Your task to perform on an android device: Add bose soundsport free to the cart on newegg.com Image 0: 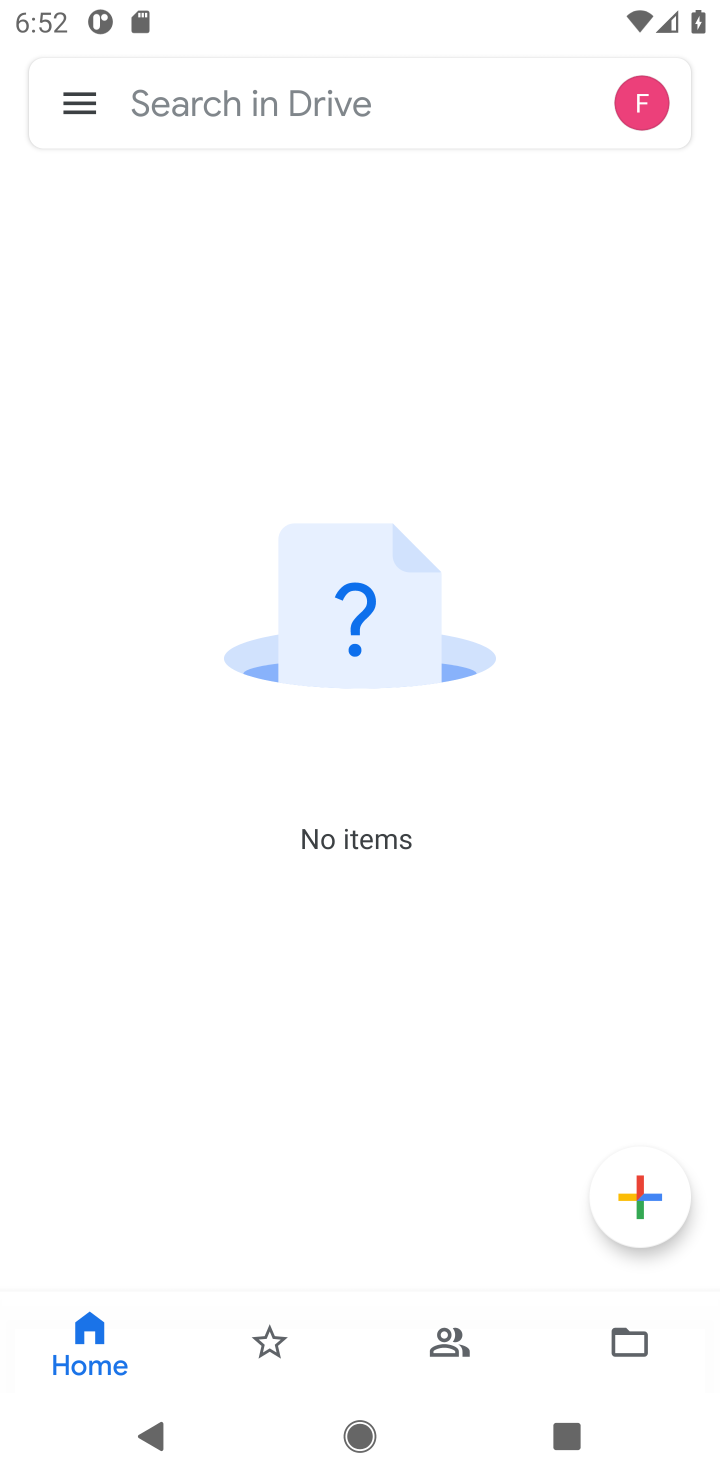
Step 0: press home button
Your task to perform on an android device: Add bose soundsport free to the cart on newegg.com Image 1: 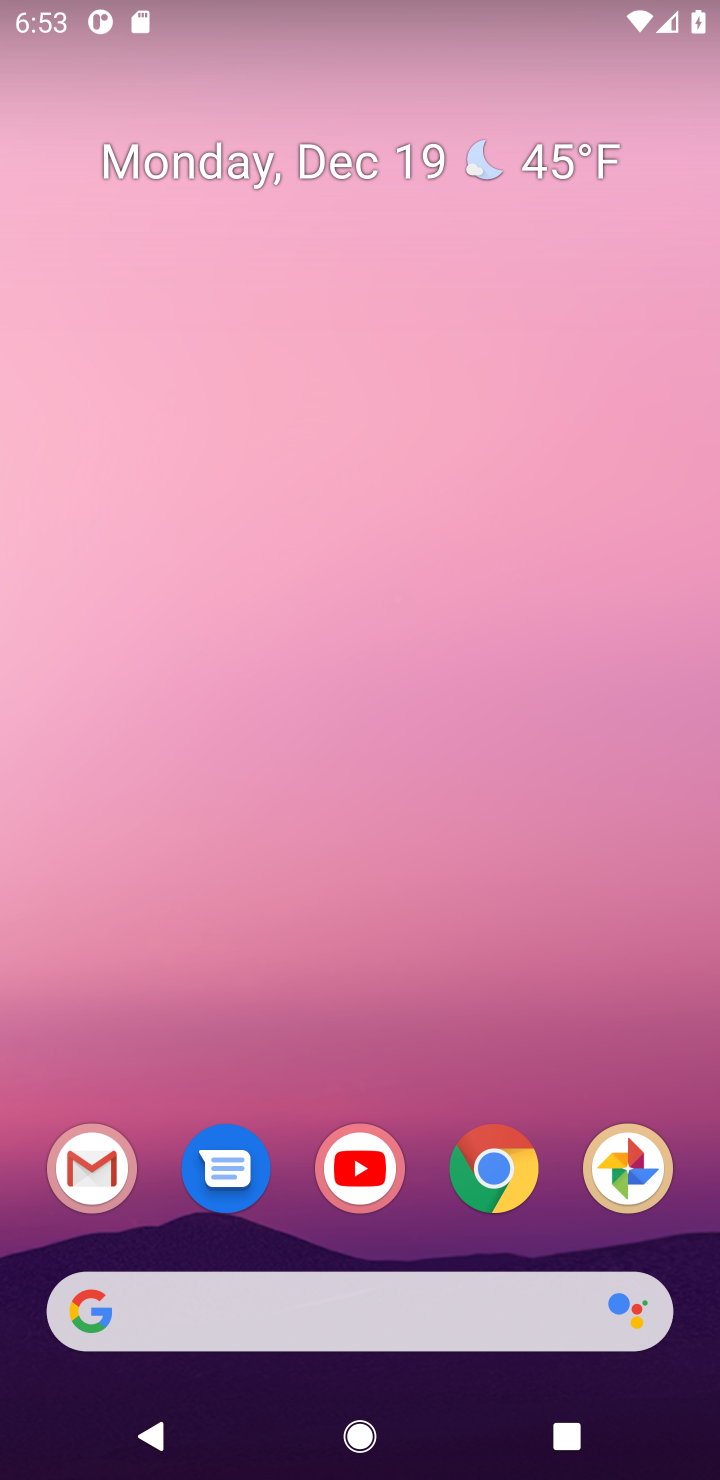
Step 1: click (488, 1190)
Your task to perform on an android device: Add bose soundsport free to the cart on newegg.com Image 2: 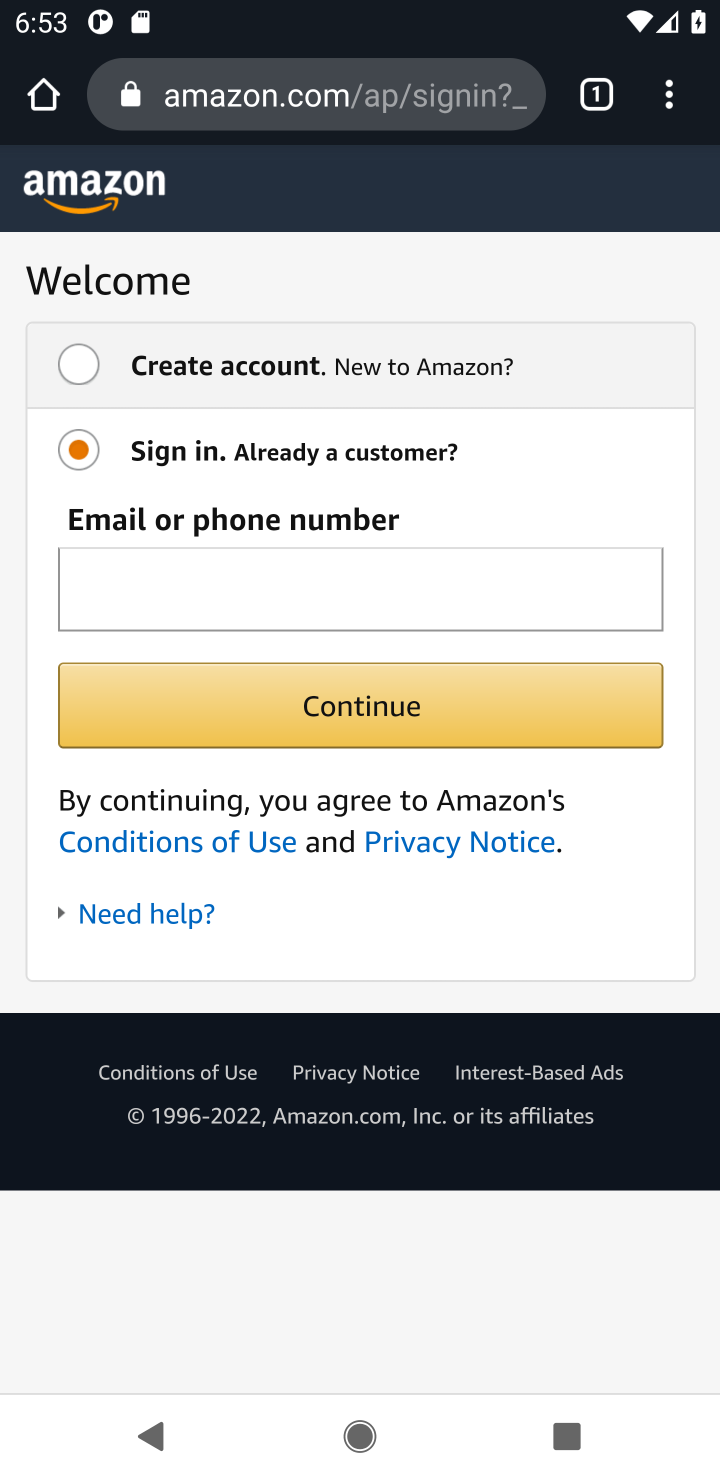
Step 2: click (289, 94)
Your task to perform on an android device: Add bose soundsport free to the cart on newegg.com Image 3: 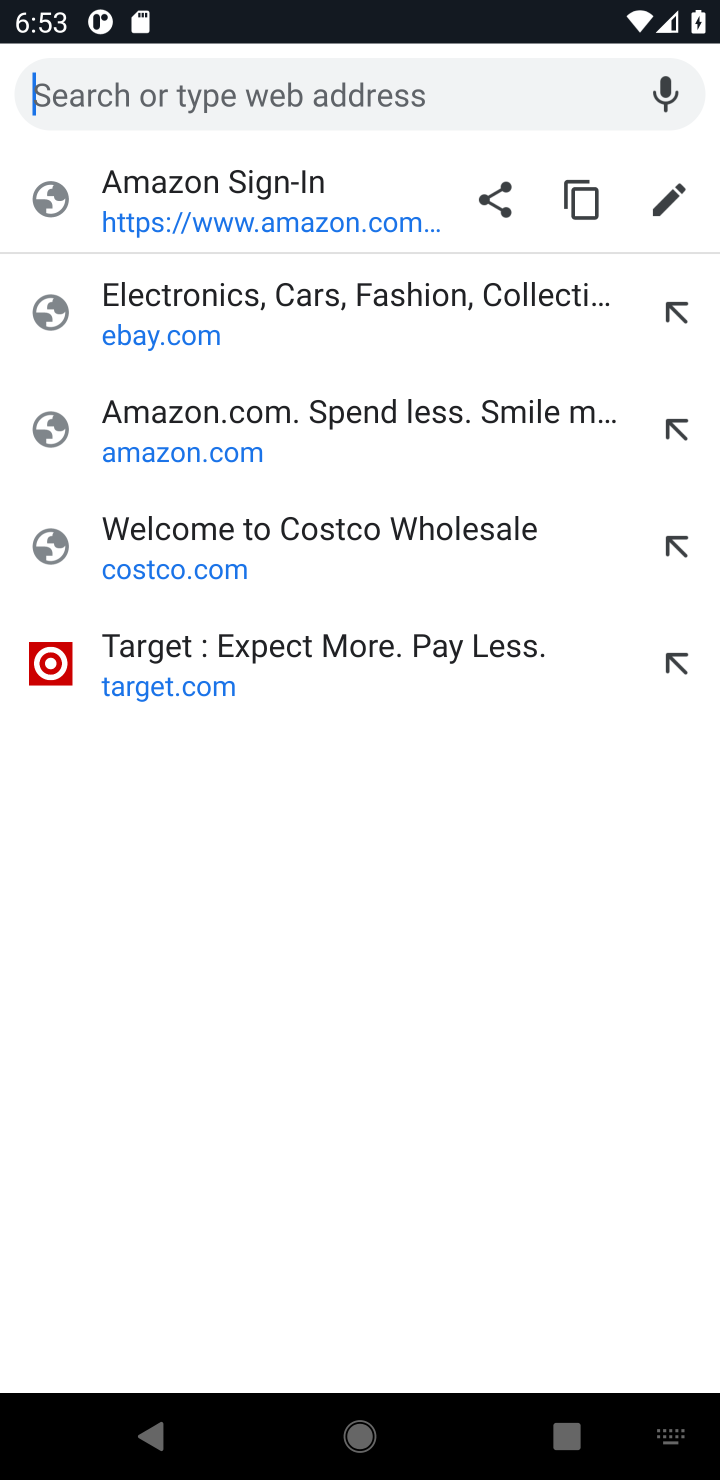
Step 3: type "newegg.com"
Your task to perform on an android device: Add bose soundsport free to the cart on newegg.com Image 4: 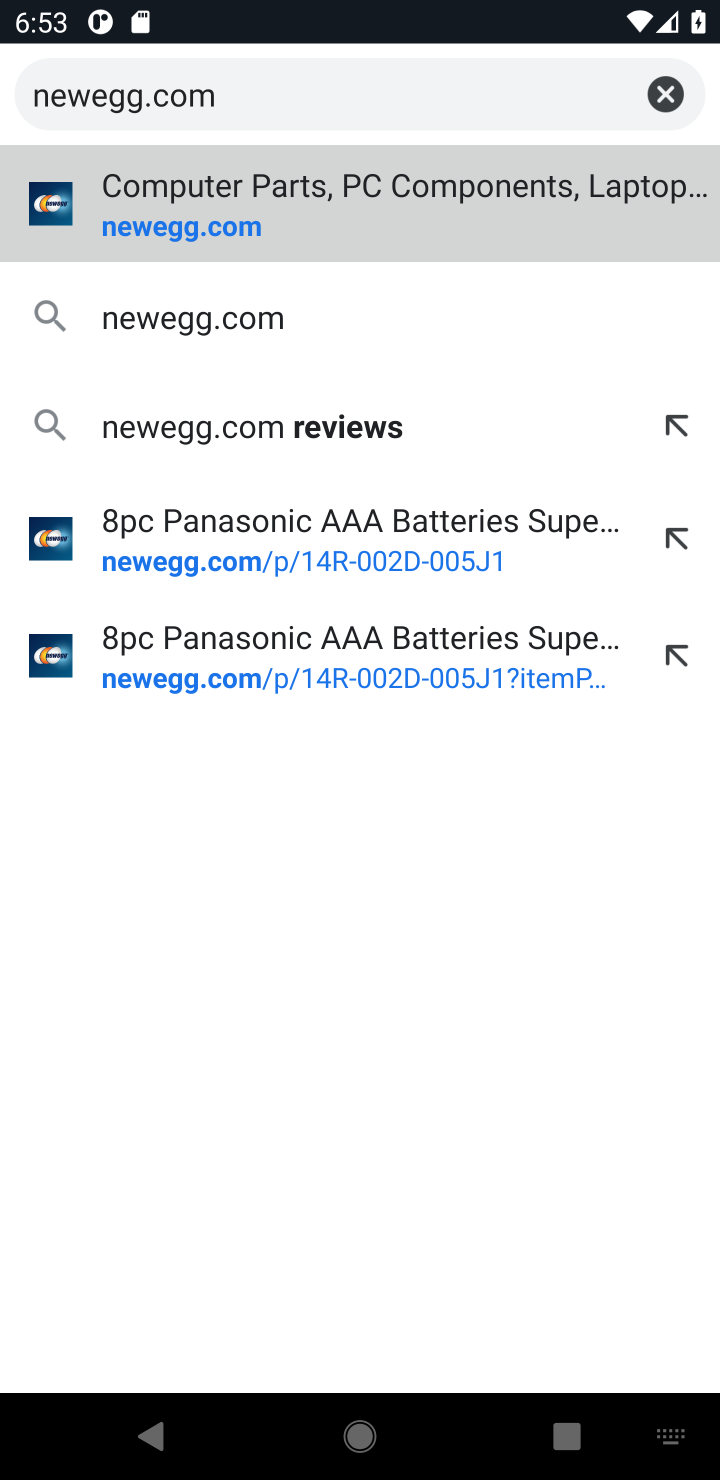
Step 4: click (143, 228)
Your task to perform on an android device: Add bose soundsport free to the cart on newegg.com Image 5: 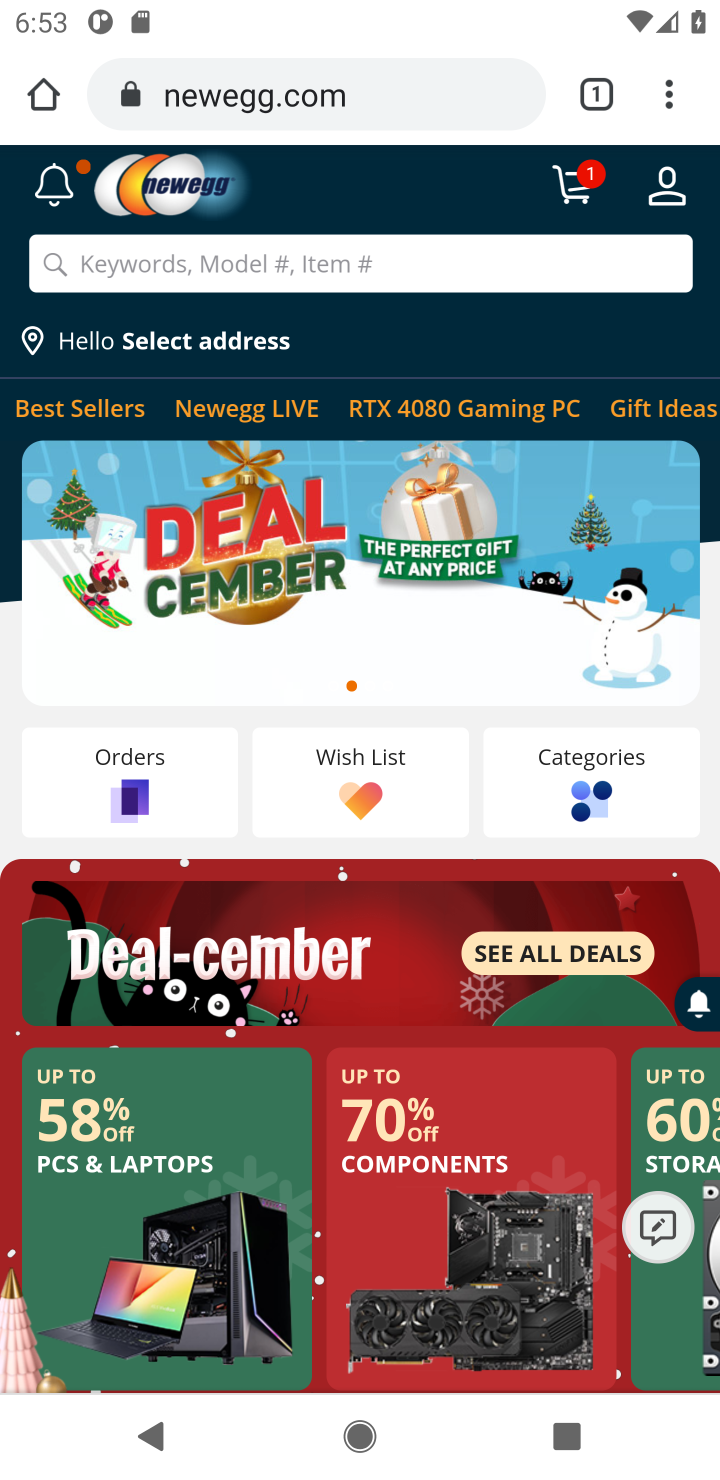
Step 5: click (141, 259)
Your task to perform on an android device: Add bose soundsport free to the cart on newegg.com Image 6: 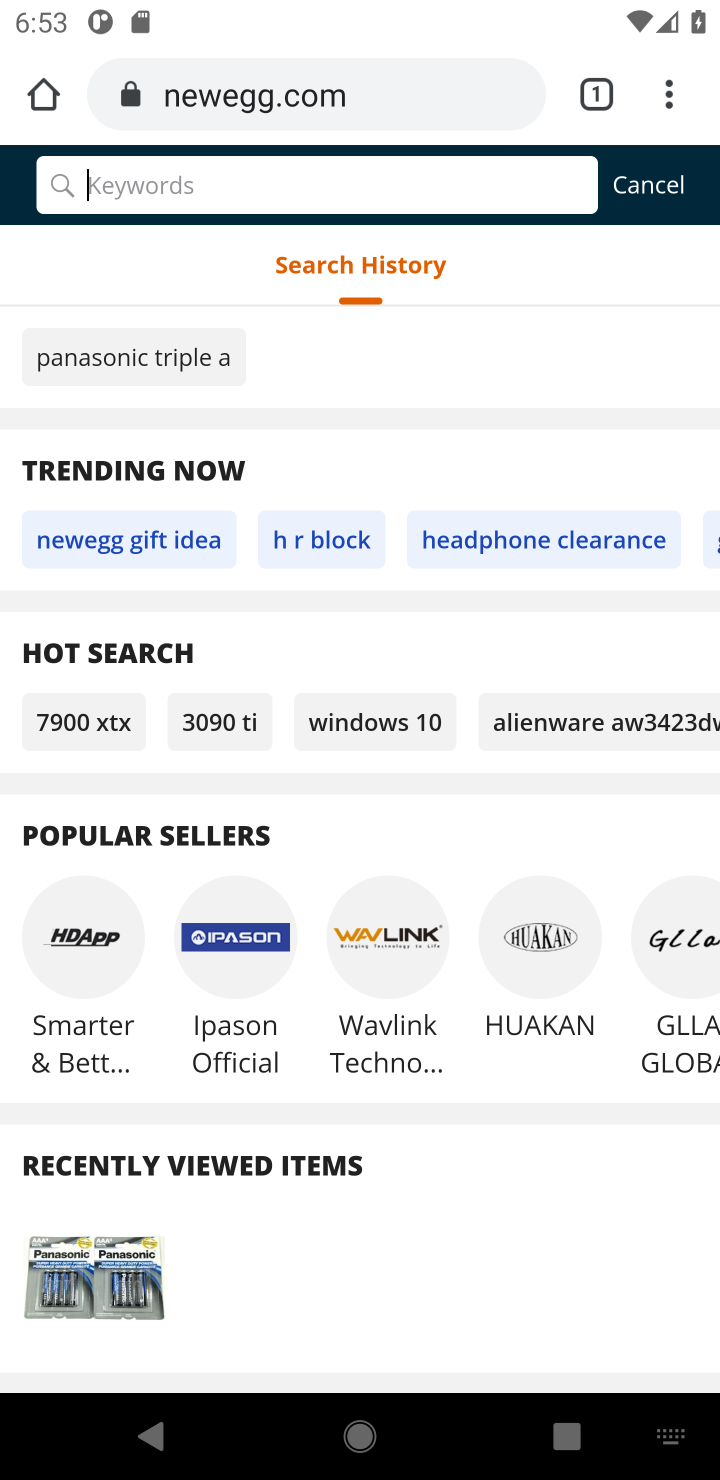
Step 6: type "bose soundsport free"
Your task to perform on an android device: Add bose soundsport free to the cart on newegg.com Image 7: 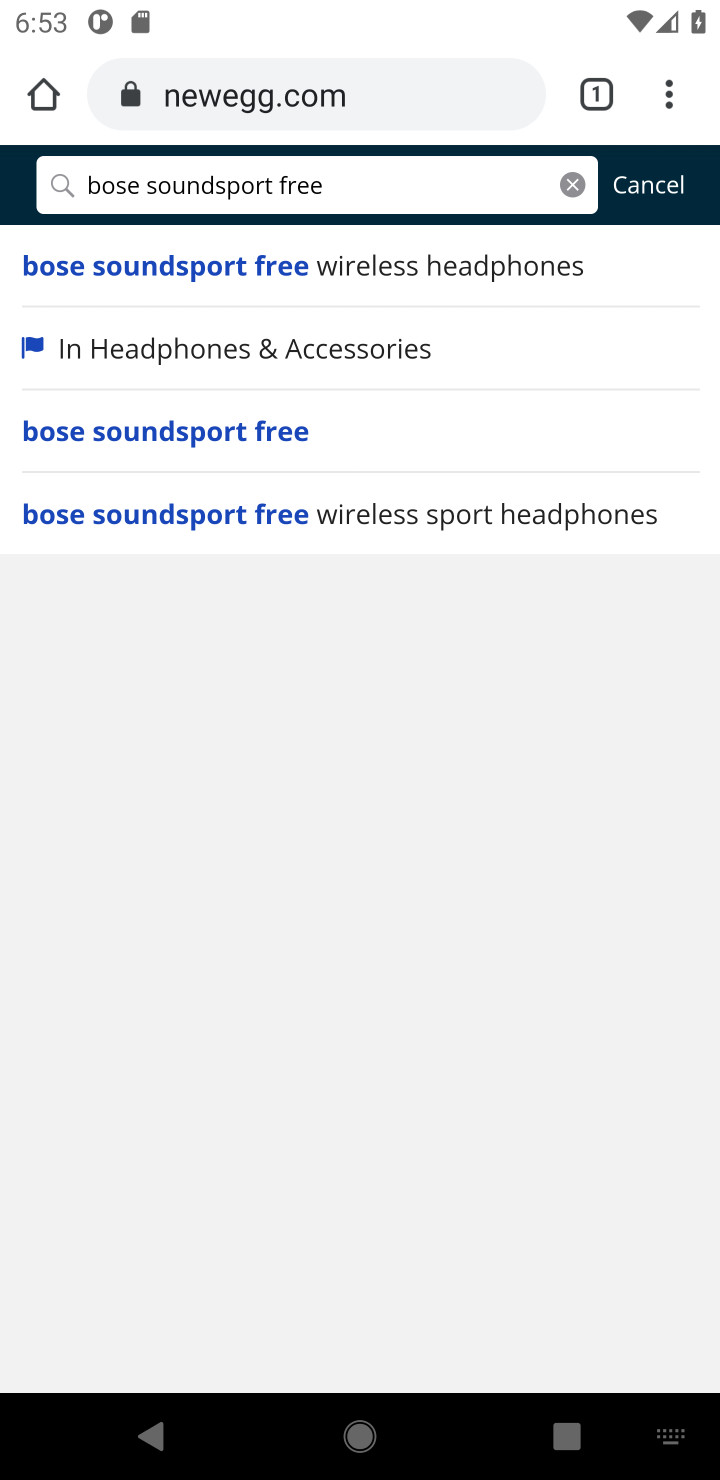
Step 7: click (145, 451)
Your task to perform on an android device: Add bose soundsport free to the cart on newegg.com Image 8: 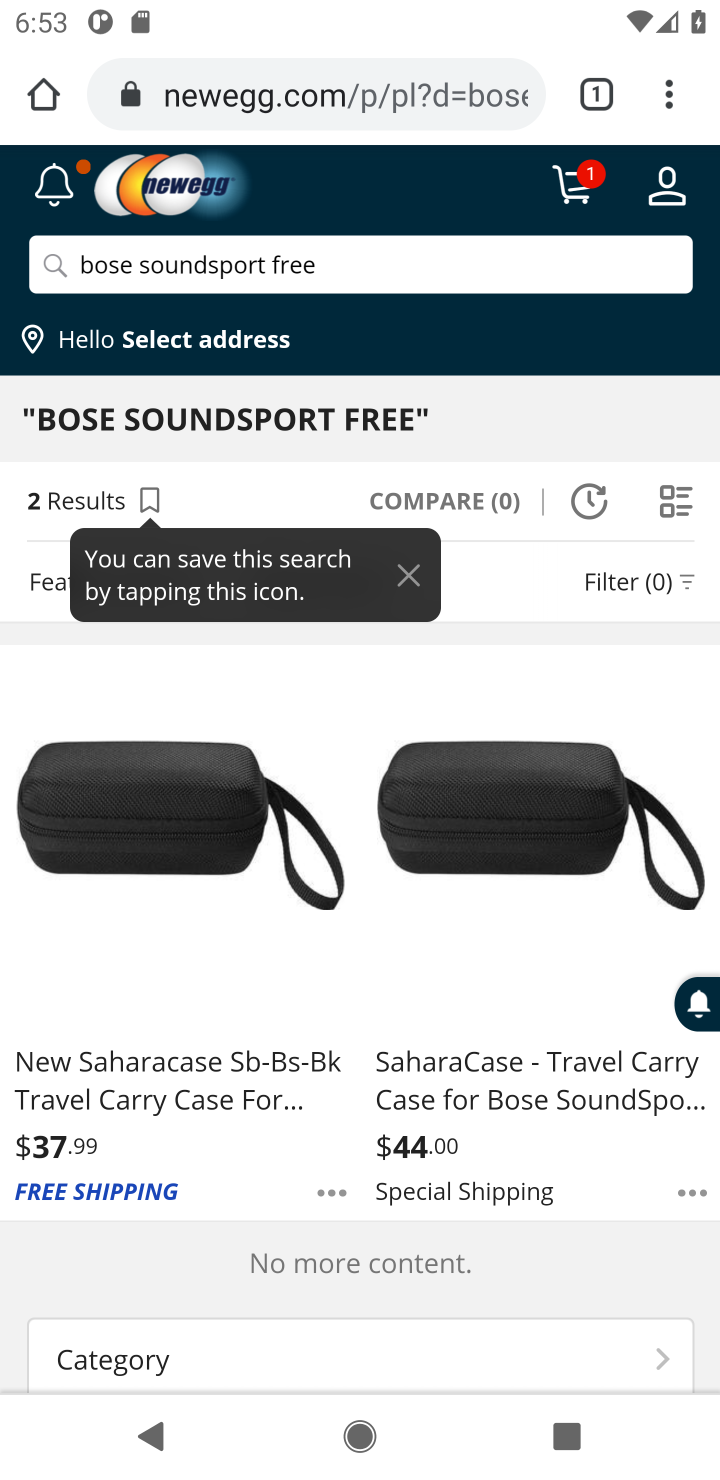
Step 8: drag from (301, 1056) to (301, 844)
Your task to perform on an android device: Add bose soundsport free to the cart on newegg.com Image 9: 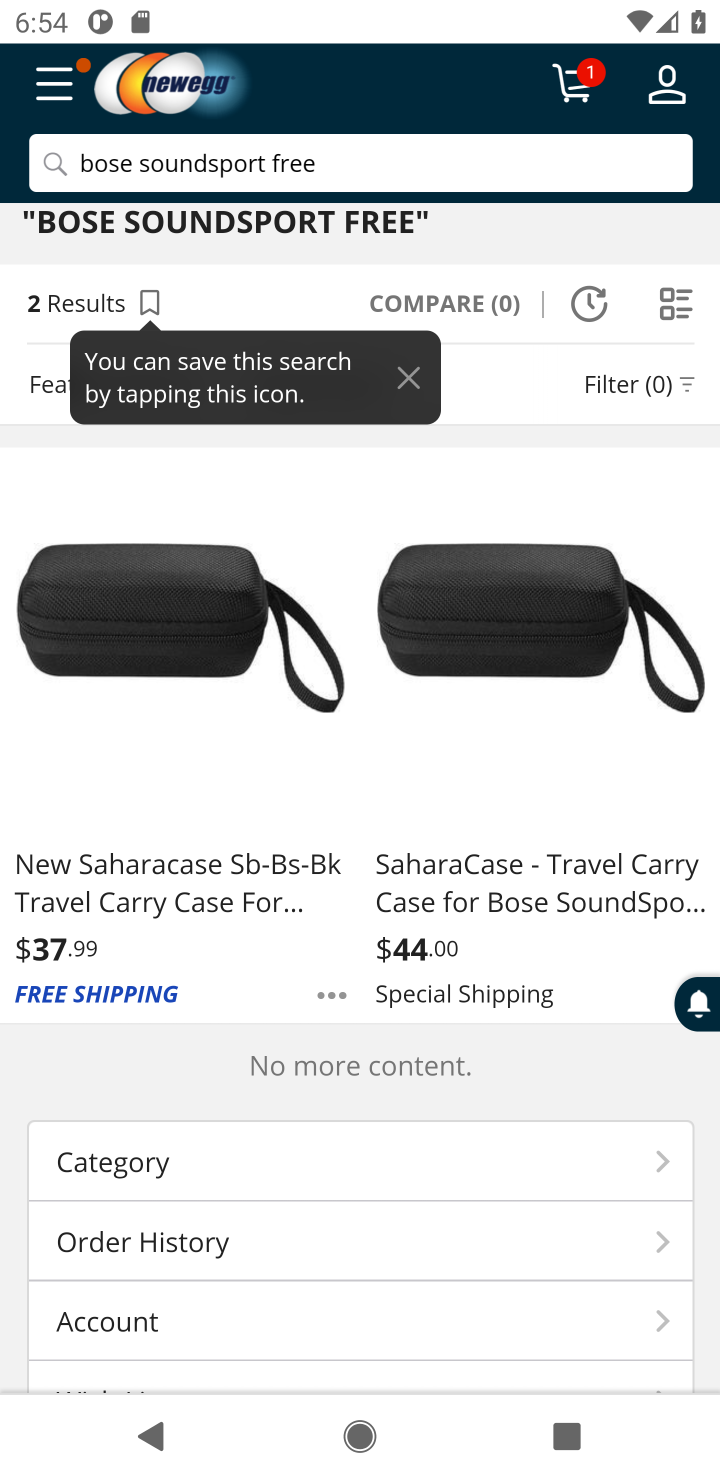
Step 9: drag from (176, 758) to (213, 475)
Your task to perform on an android device: Add bose soundsport free to the cart on newegg.com Image 10: 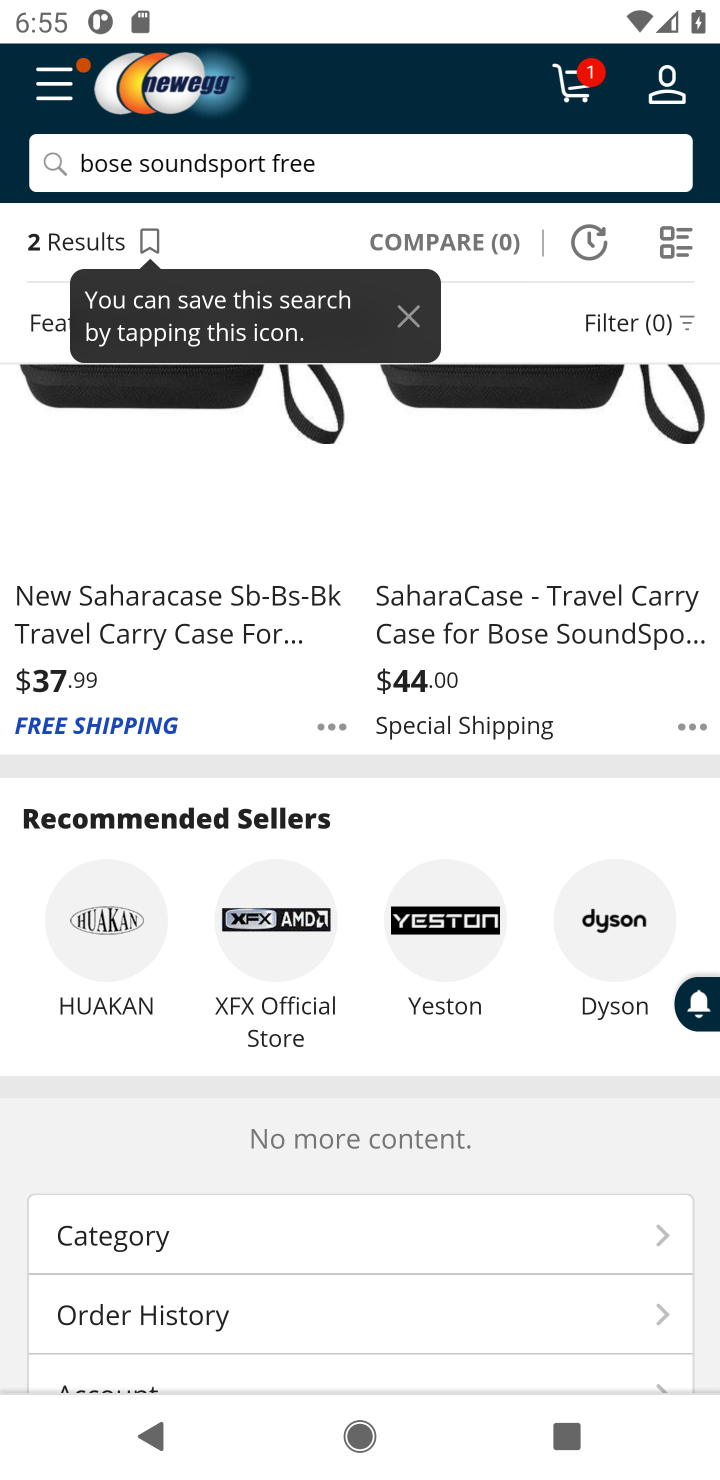
Step 10: click (137, 623)
Your task to perform on an android device: Add bose soundsport free to the cart on newegg.com Image 11: 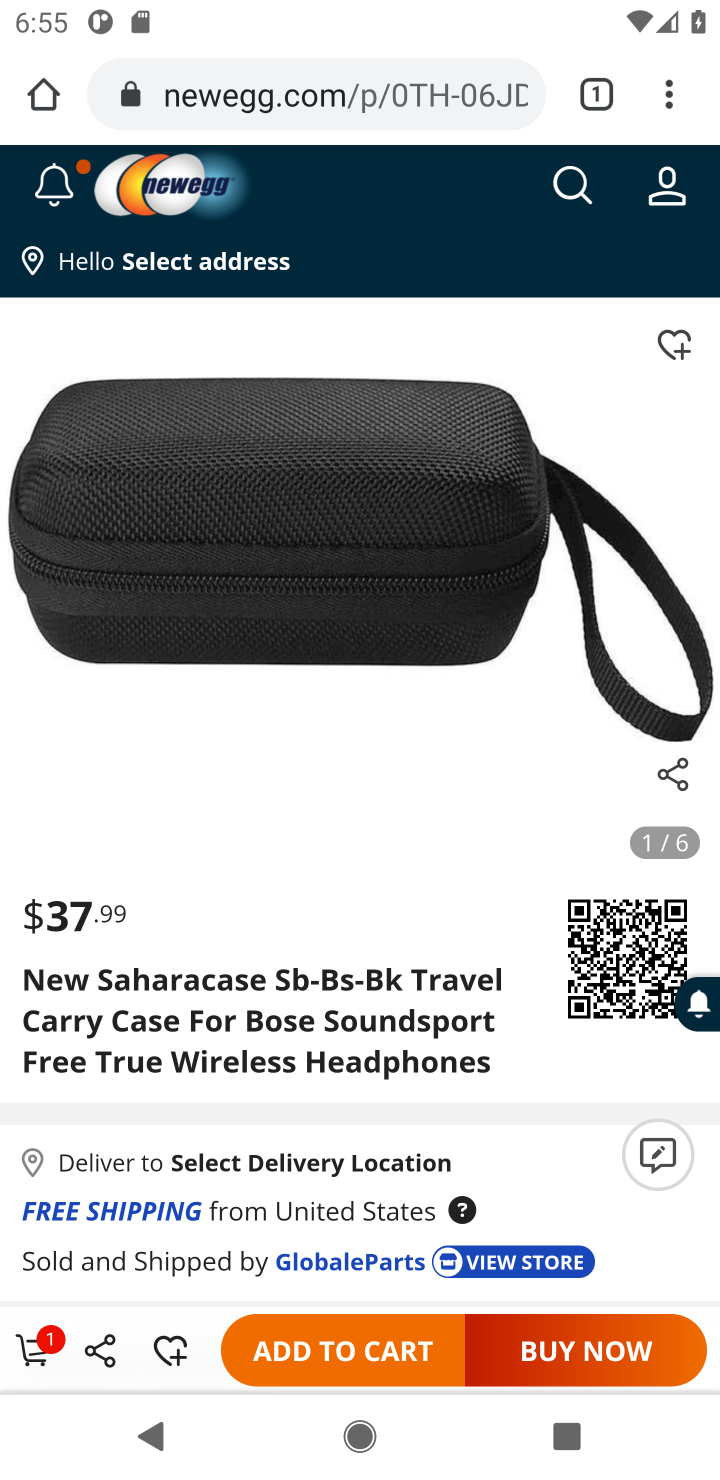
Step 11: click (351, 1345)
Your task to perform on an android device: Add bose soundsport free to the cart on newegg.com Image 12: 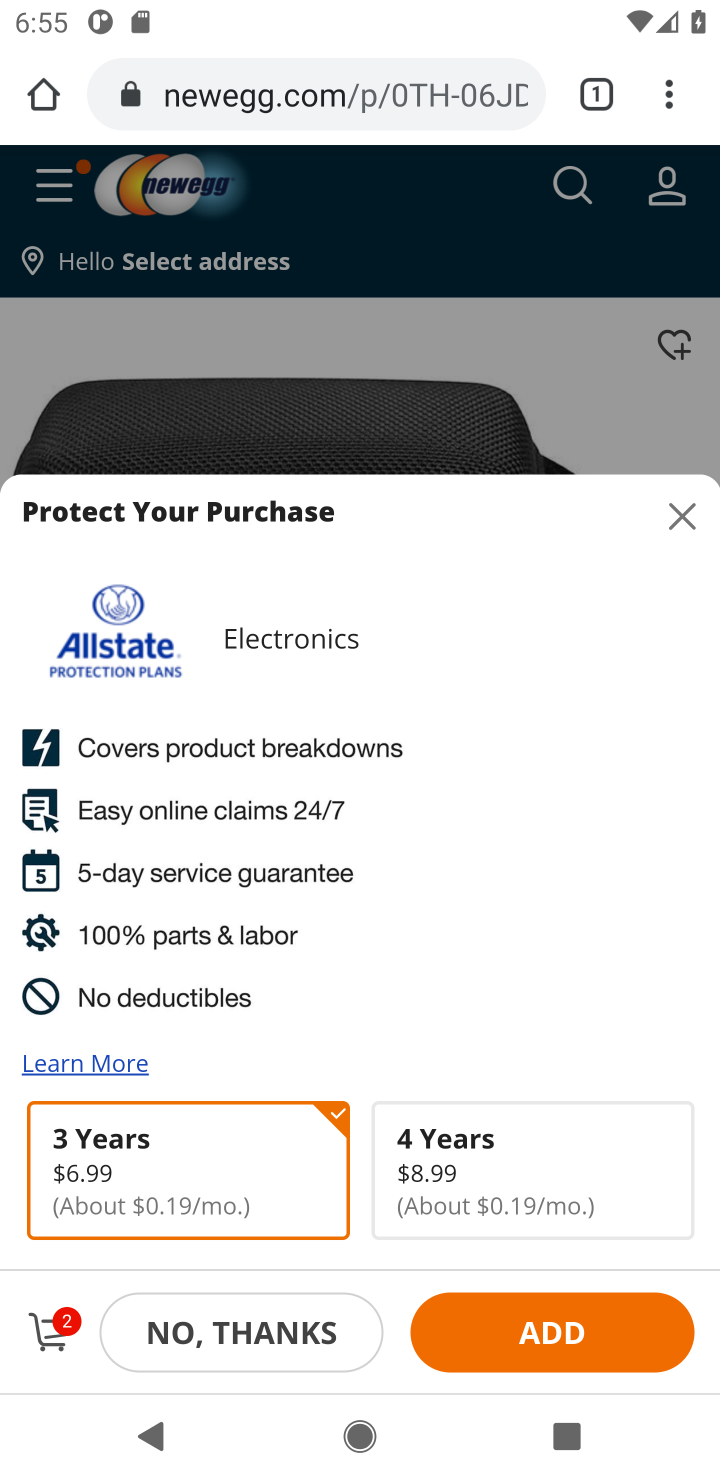
Step 12: task complete